Your task to perform on an android device: Search for pizza restaurants on Maps Image 0: 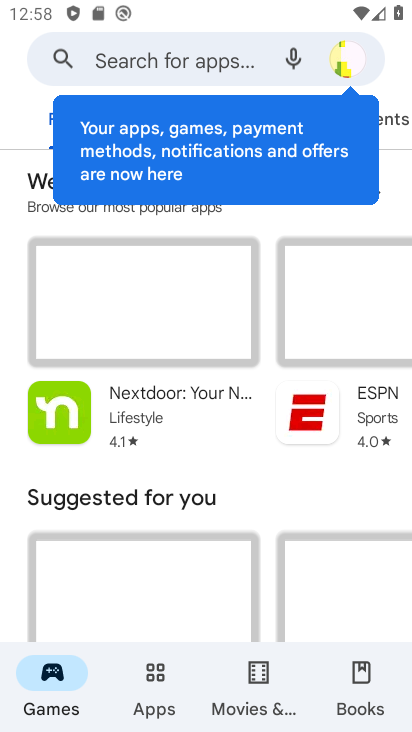
Step 0: press back button
Your task to perform on an android device: Search for pizza restaurants on Maps Image 1: 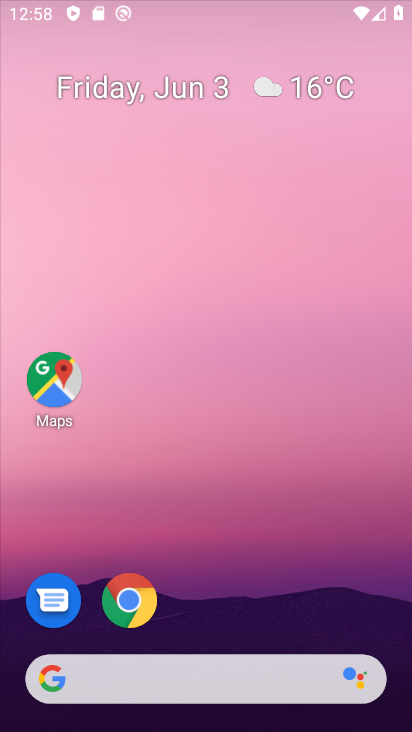
Step 1: press back button
Your task to perform on an android device: Search for pizza restaurants on Maps Image 2: 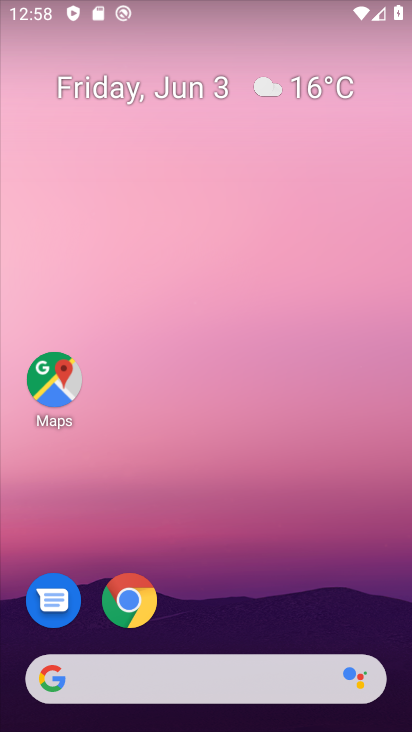
Step 2: drag from (252, 457) to (224, 25)
Your task to perform on an android device: Search for pizza restaurants on Maps Image 3: 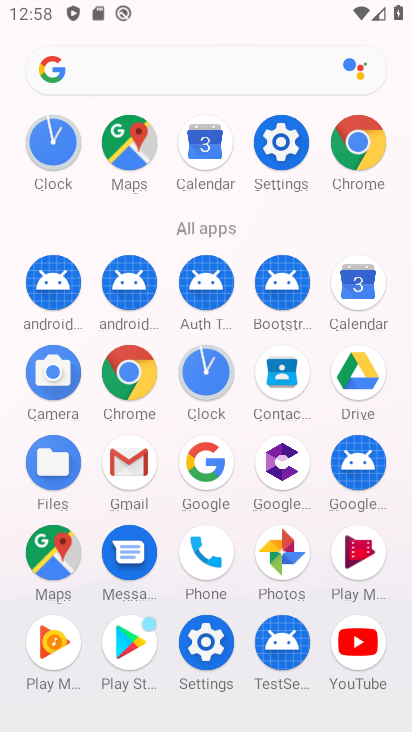
Step 3: click (49, 550)
Your task to perform on an android device: Search for pizza restaurants on Maps Image 4: 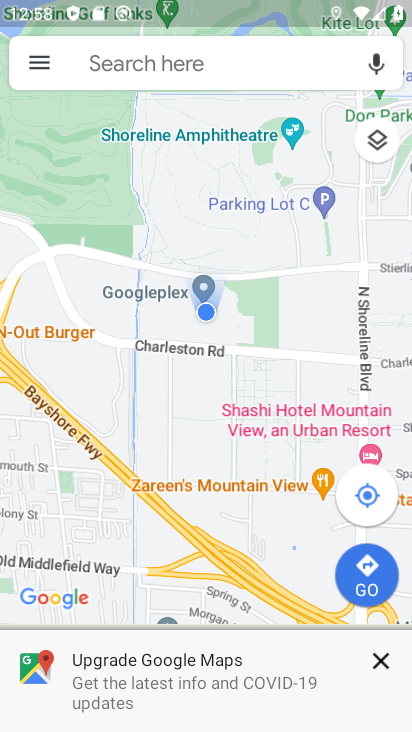
Step 4: click (284, 68)
Your task to perform on an android device: Search for pizza restaurants on Maps Image 5: 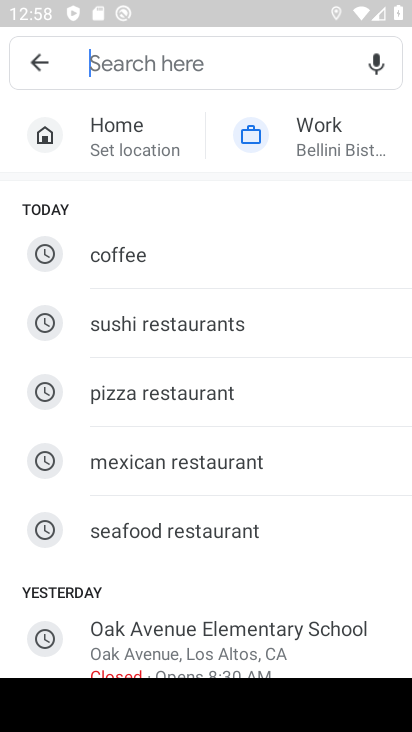
Step 5: click (170, 389)
Your task to perform on an android device: Search for pizza restaurants on Maps Image 6: 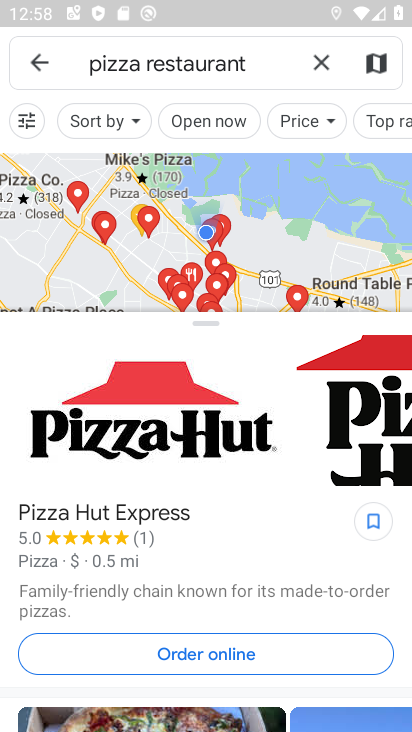
Step 6: task complete